Your task to perform on an android device: toggle improve location accuracy Image 0: 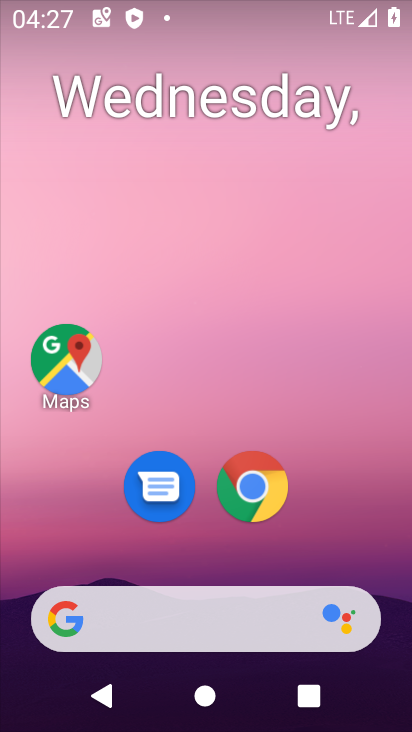
Step 0: drag from (222, 578) to (209, 98)
Your task to perform on an android device: toggle improve location accuracy Image 1: 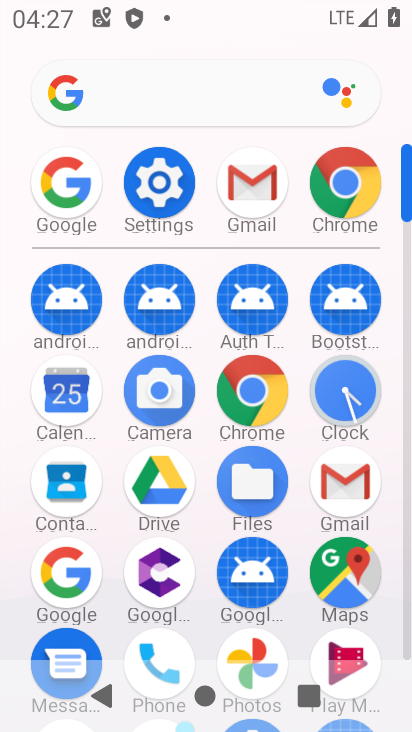
Step 1: click (161, 195)
Your task to perform on an android device: toggle improve location accuracy Image 2: 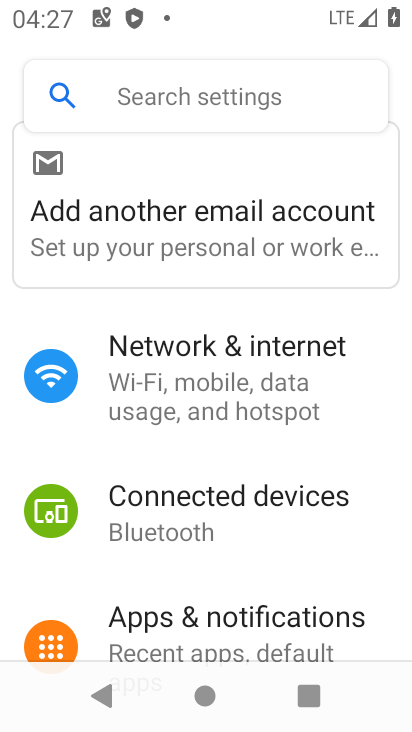
Step 2: drag from (179, 605) to (192, 327)
Your task to perform on an android device: toggle improve location accuracy Image 3: 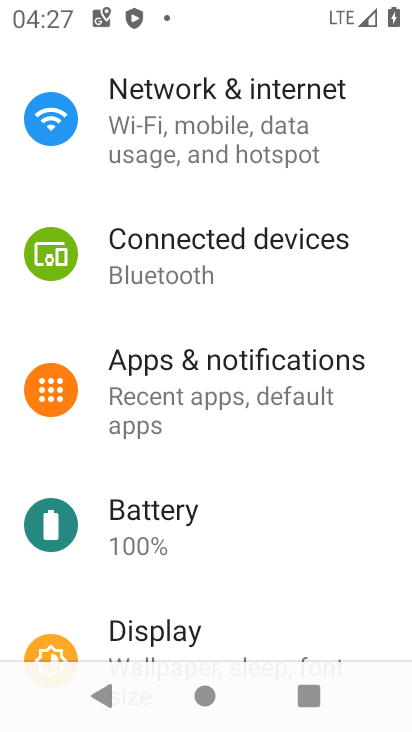
Step 3: drag from (191, 628) to (213, 254)
Your task to perform on an android device: toggle improve location accuracy Image 4: 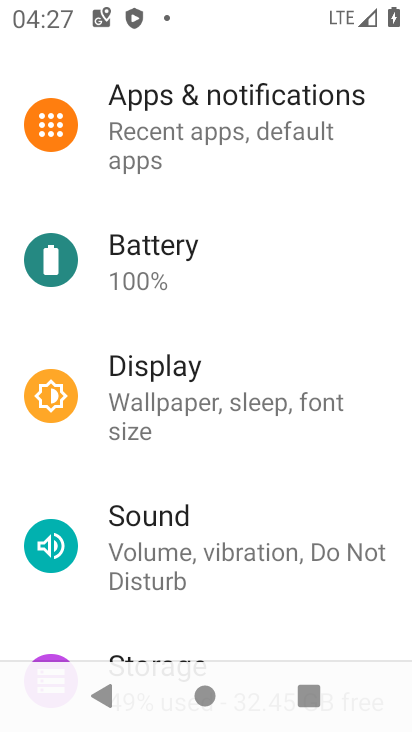
Step 4: drag from (177, 564) to (201, 253)
Your task to perform on an android device: toggle improve location accuracy Image 5: 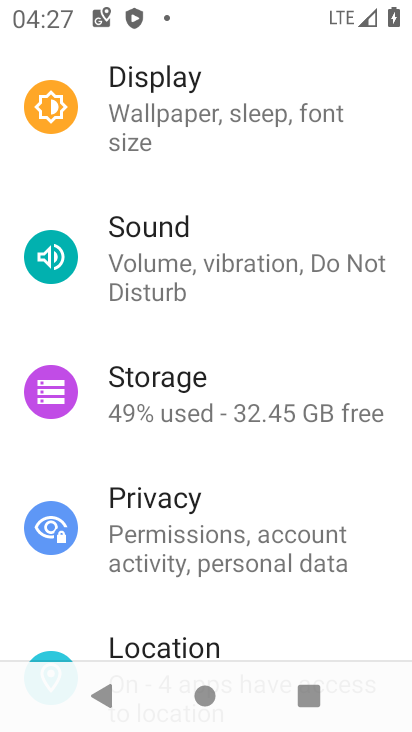
Step 5: click (161, 642)
Your task to perform on an android device: toggle improve location accuracy Image 6: 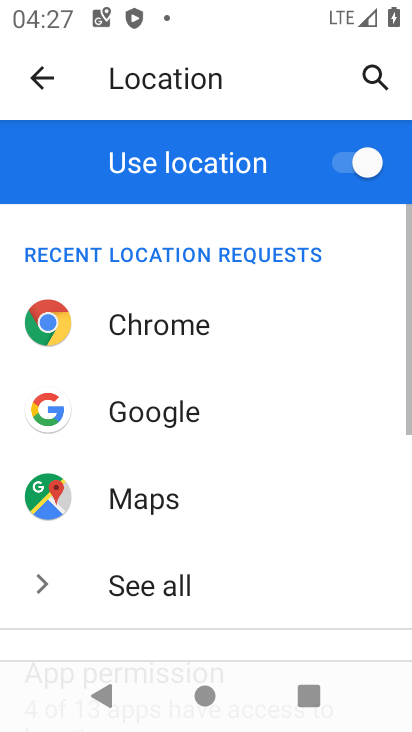
Step 6: drag from (171, 493) to (216, 79)
Your task to perform on an android device: toggle improve location accuracy Image 7: 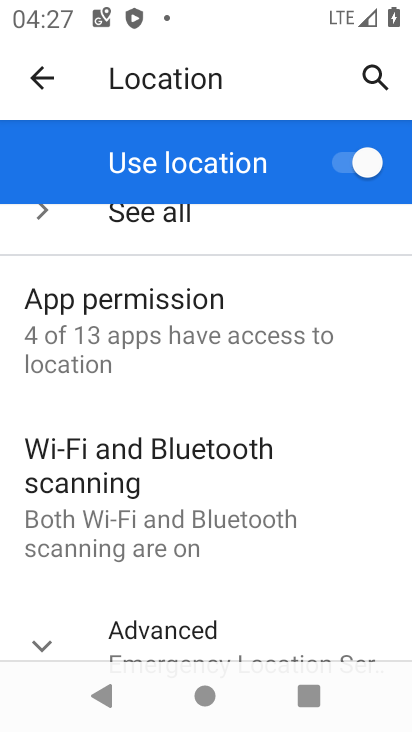
Step 7: drag from (175, 615) to (192, 409)
Your task to perform on an android device: toggle improve location accuracy Image 8: 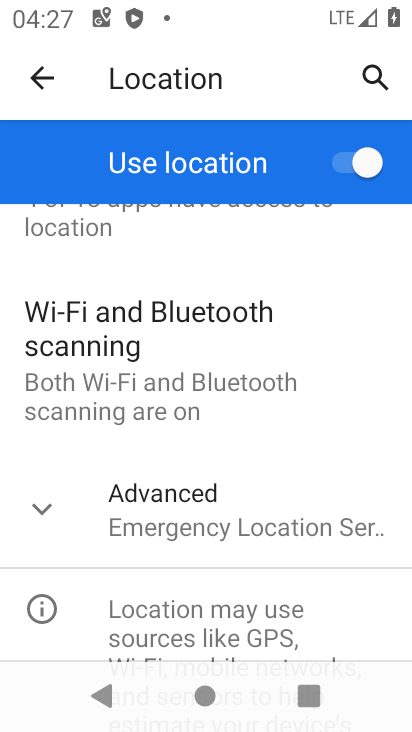
Step 8: click (185, 514)
Your task to perform on an android device: toggle improve location accuracy Image 9: 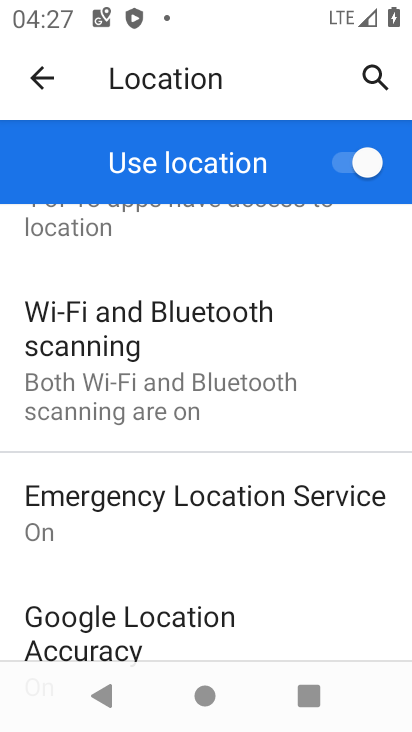
Step 9: drag from (196, 614) to (244, 254)
Your task to perform on an android device: toggle improve location accuracy Image 10: 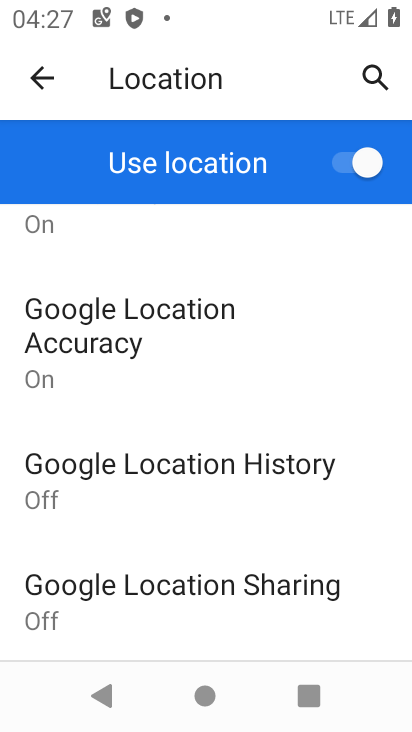
Step 10: click (142, 332)
Your task to perform on an android device: toggle improve location accuracy Image 11: 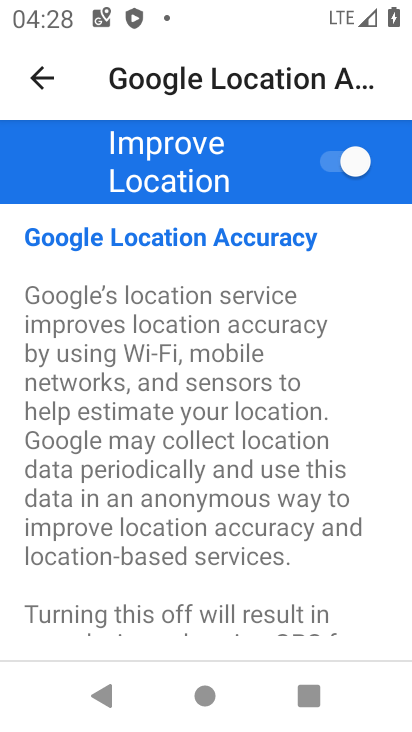
Step 11: click (330, 162)
Your task to perform on an android device: toggle improve location accuracy Image 12: 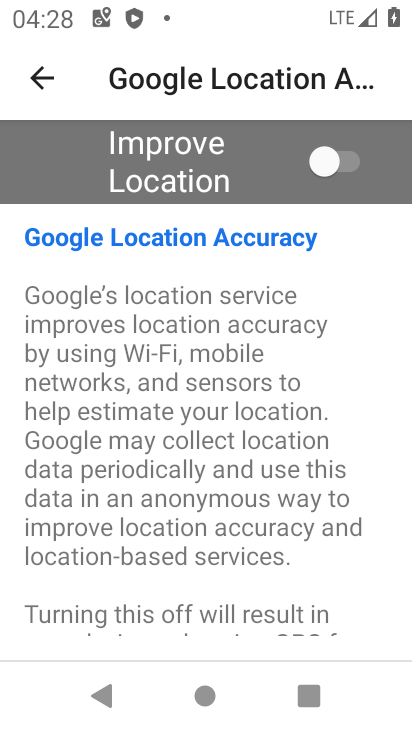
Step 12: task complete